Your task to perform on an android device: set default search engine in the chrome app Image 0: 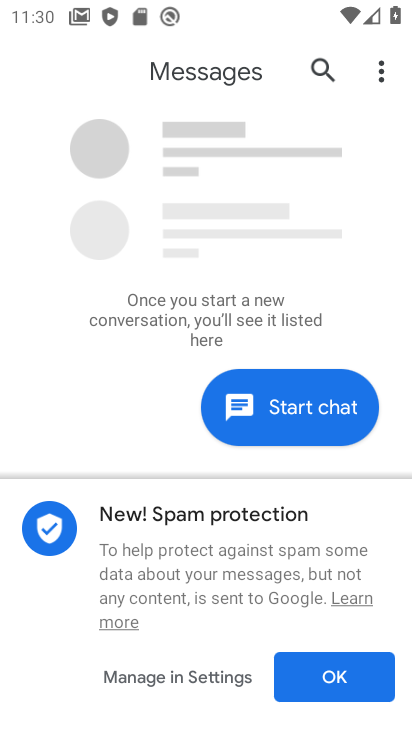
Step 0: press home button
Your task to perform on an android device: set default search engine in the chrome app Image 1: 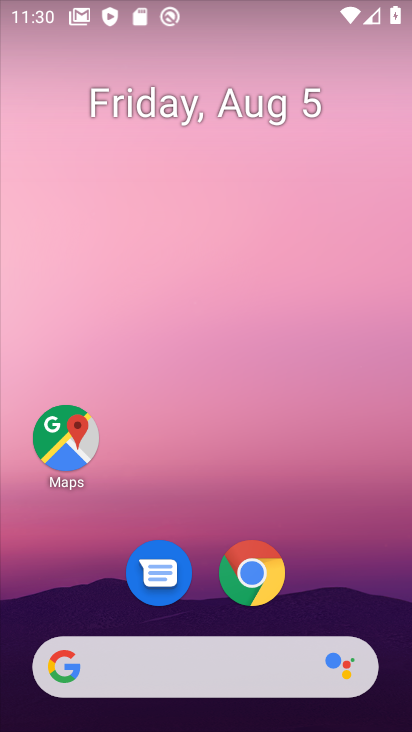
Step 1: click (254, 581)
Your task to perform on an android device: set default search engine in the chrome app Image 2: 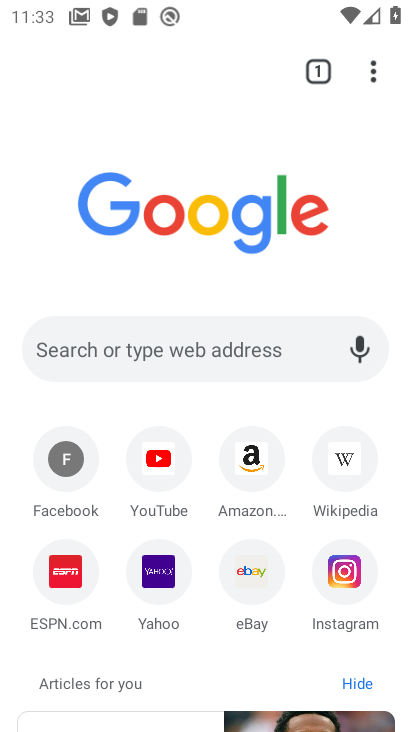
Step 2: press home button
Your task to perform on an android device: set default search engine in the chrome app Image 3: 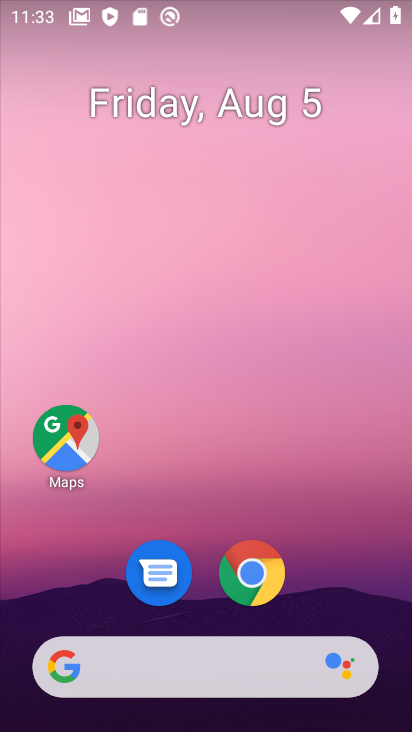
Step 3: click (270, 573)
Your task to perform on an android device: set default search engine in the chrome app Image 4: 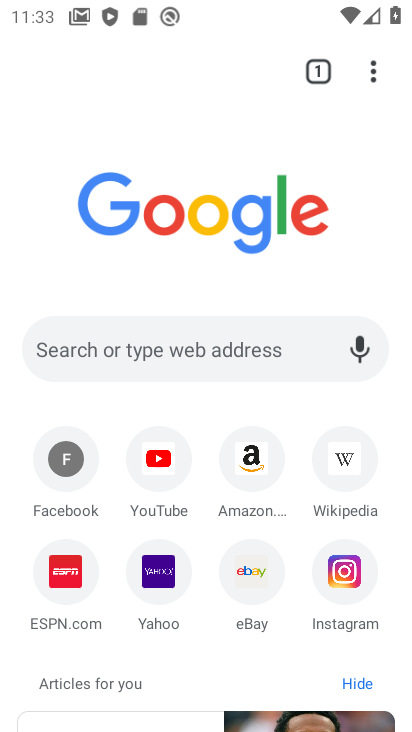
Step 4: task complete